Your task to perform on an android device: turn on bluetooth scan Image 0: 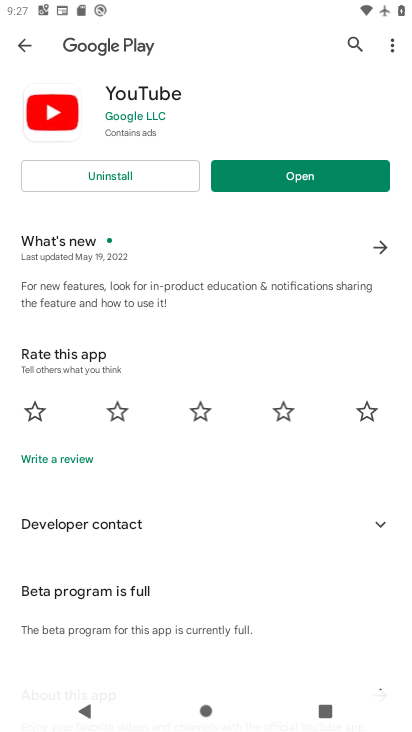
Step 0: press home button
Your task to perform on an android device: turn on bluetooth scan Image 1: 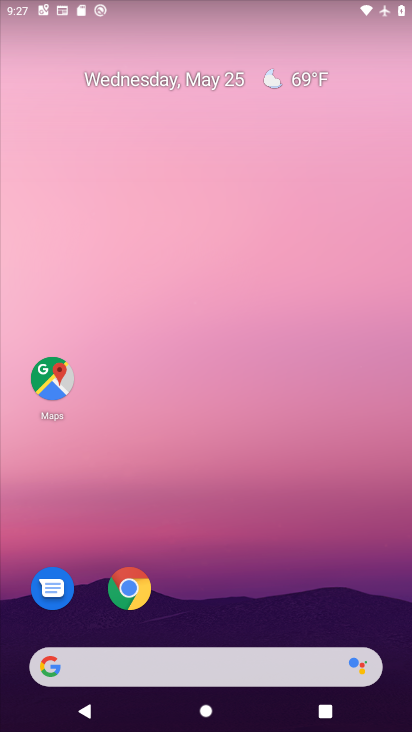
Step 1: drag from (331, 614) to (354, 204)
Your task to perform on an android device: turn on bluetooth scan Image 2: 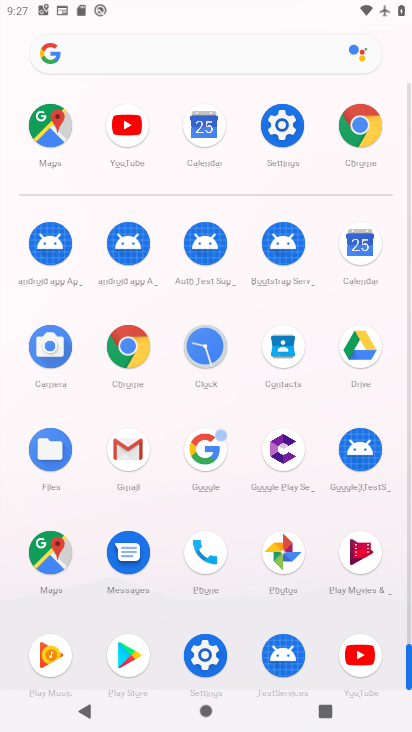
Step 2: click (205, 661)
Your task to perform on an android device: turn on bluetooth scan Image 3: 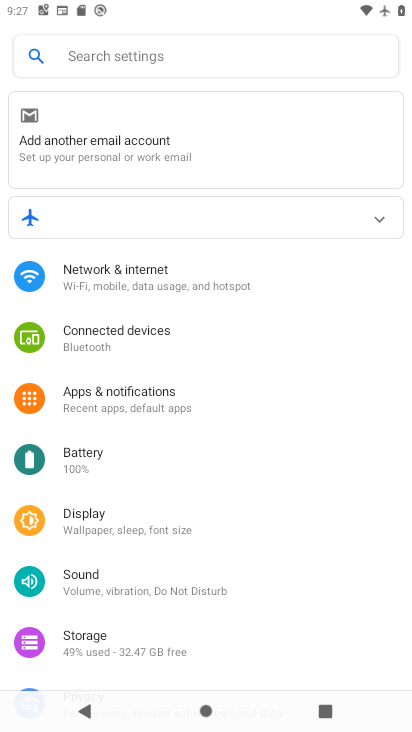
Step 3: drag from (319, 585) to (328, 436)
Your task to perform on an android device: turn on bluetooth scan Image 4: 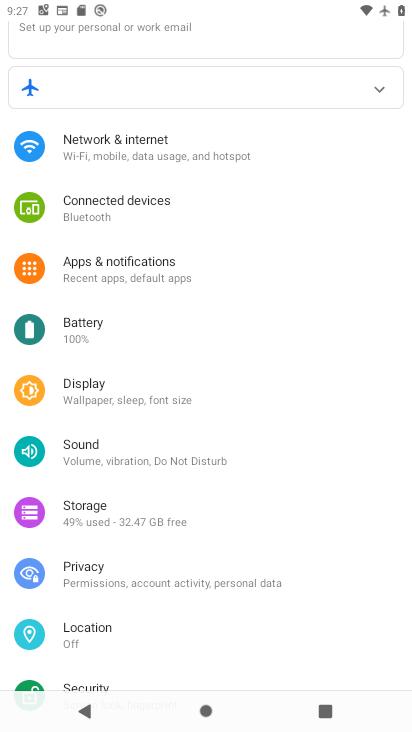
Step 4: drag from (339, 605) to (347, 478)
Your task to perform on an android device: turn on bluetooth scan Image 5: 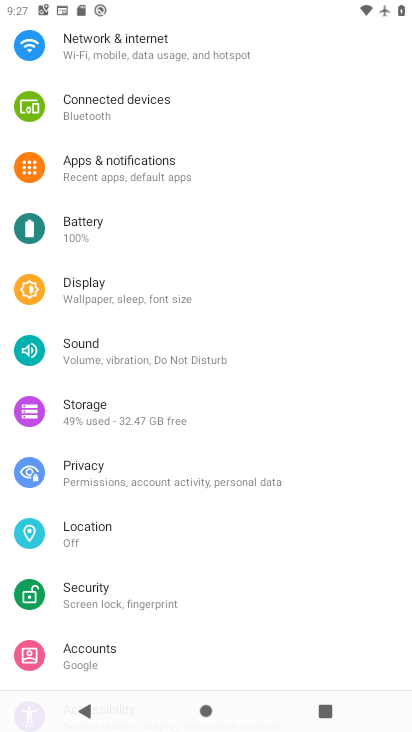
Step 5: drag from (340, 580) to (347, 479)
Your task to perform on an android device: turn on bluetooth scan Image 6: 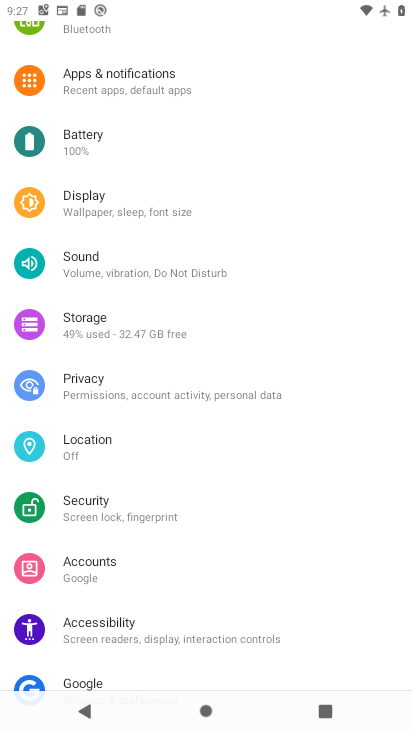
Step 6: drag from (353, 618) to (344, 479)
Your task to perform on an android device: turn on bluetooth scan Image 7: 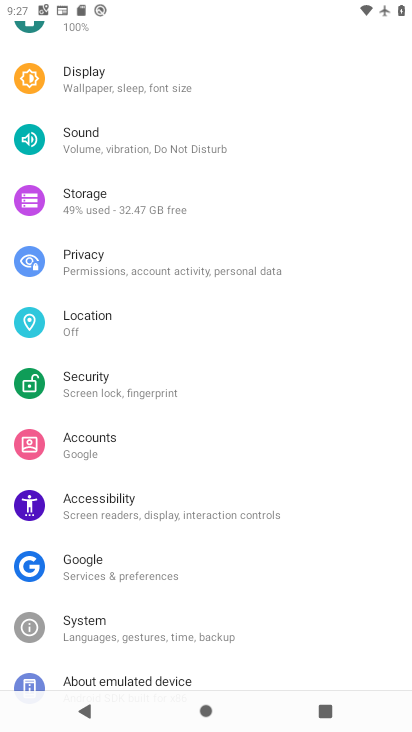
Step 7: drag from (349, 613) to (359, 482)
Your task to perform on an android device: turn on bluetooth scan Image 8: 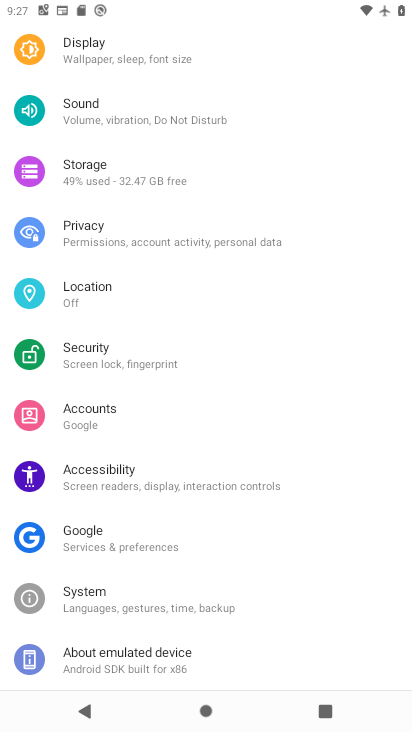
Step 8: drag from (313, 304) to (324, 415)
Your task to perform on an android device: turn on bluetooth scan Image 9: 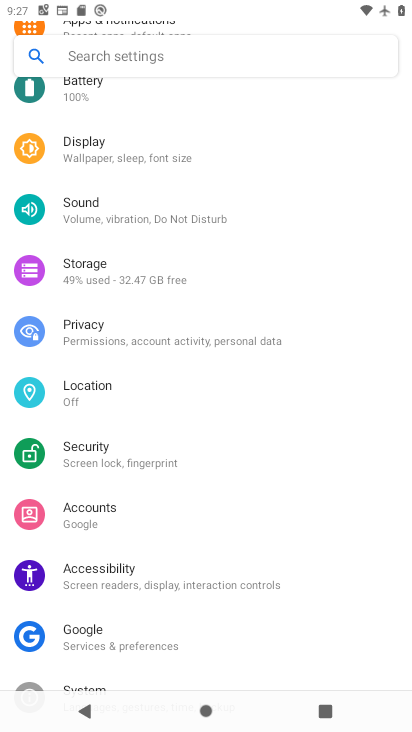
Step 9: drag from (334, 334) to (329, 435)
Your task to perform on an android device: turn on bluetooth scan Image 10: 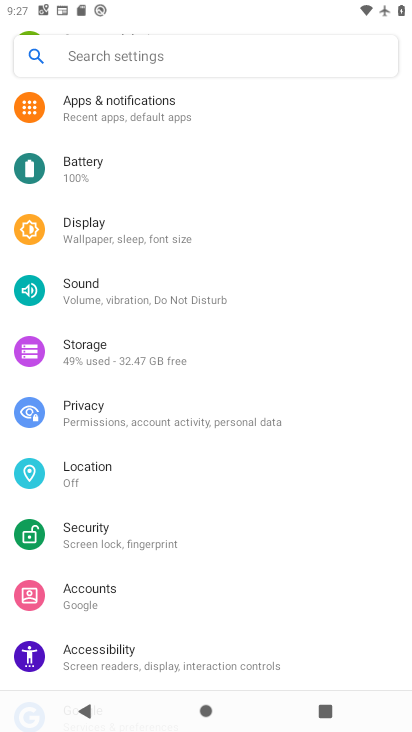
Step 10: click (179, 480)
Your task to perform on an android device: turn on bluetooth scan Image 11: 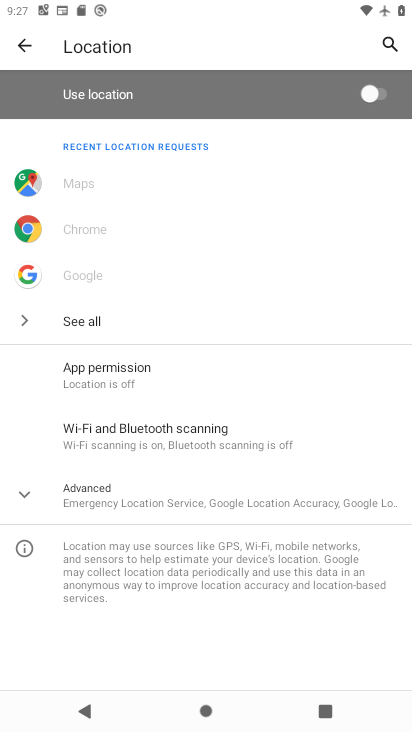
Step 11: click (248, 451)
Your task to perform on an android device: turn on bluetooth scan Image 12: 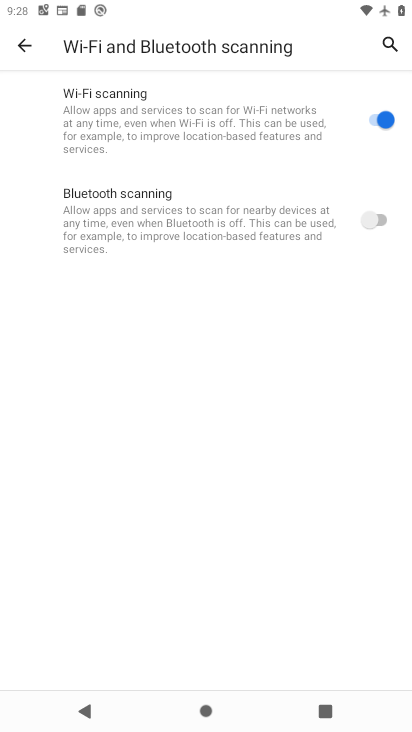
Step 12: click (356, 229)
Your task to perform on an android device: turn on bluetooth scan Image 13: 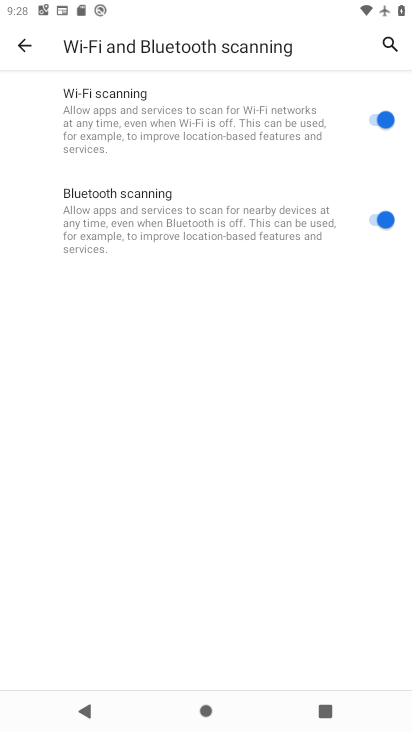
Step 13: task complete